Your task to perform on an android device: toggle location history Image 0: 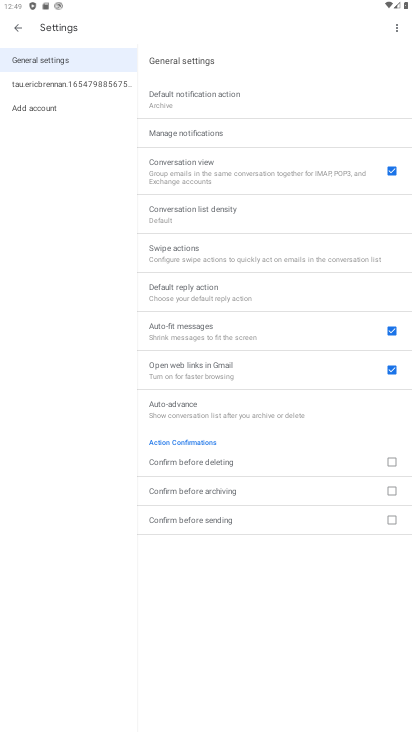
Step 0: press home button
Your task to perform on an android device: toggle location history Image 1: 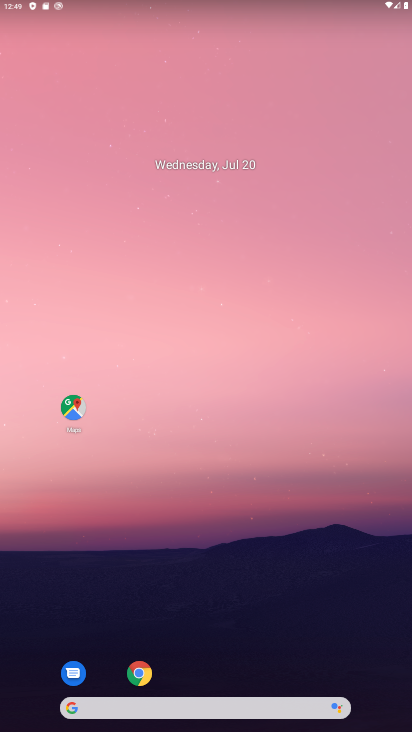
Step 1: drag from (167, 626) to (197, 220)
Your task to perform on an android device: toggle location history Image 2: 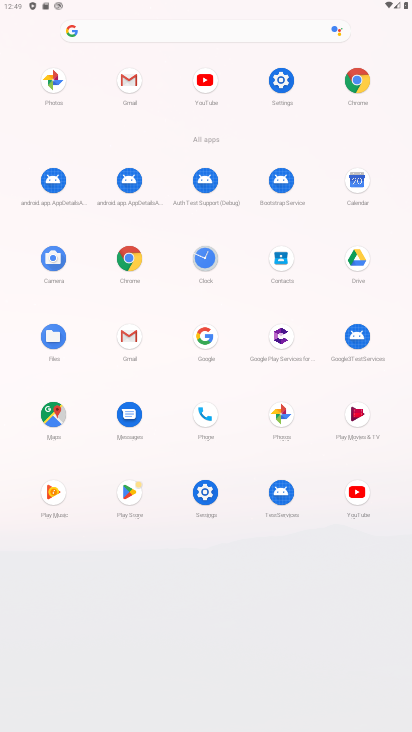
Step 2: click (278, 85)
Your task to perform on an android device: toggle location history Image 3: 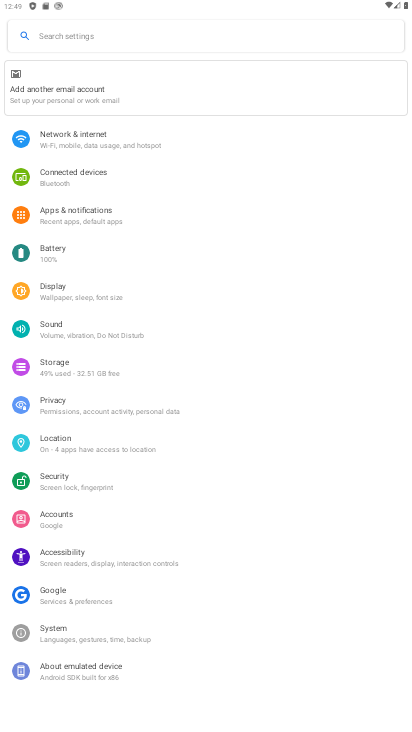
Step 3: click (120, 452)
Your task to perform on an android device: toggle location history Image 4: 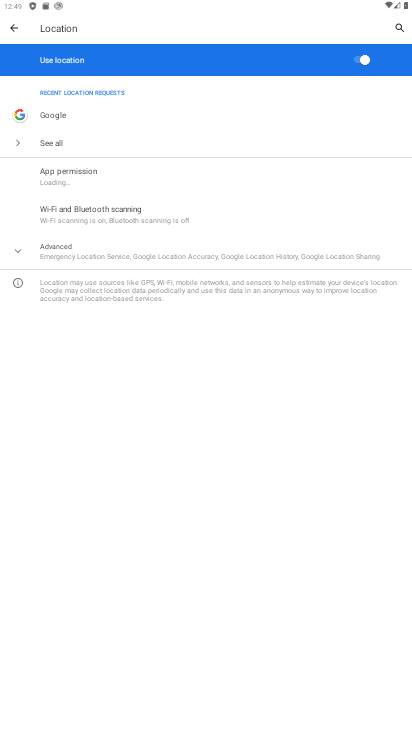
Step 4: click (116, 247)
Your task to perform on an android device: toggle location history Image 5: 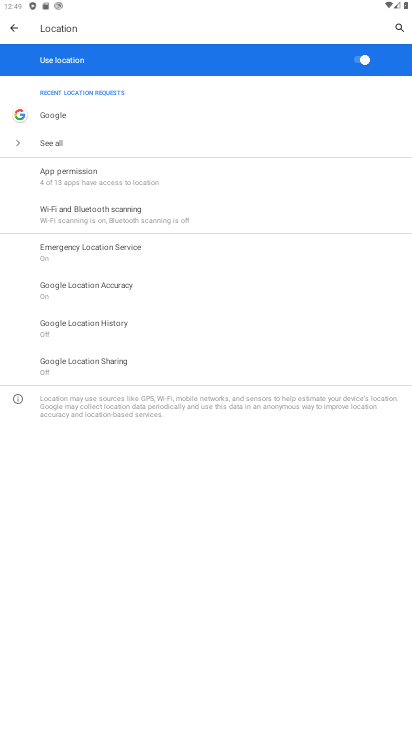
Step 5: click (79, 320)
Your task to perform on an android device: toggle location history Image 6: 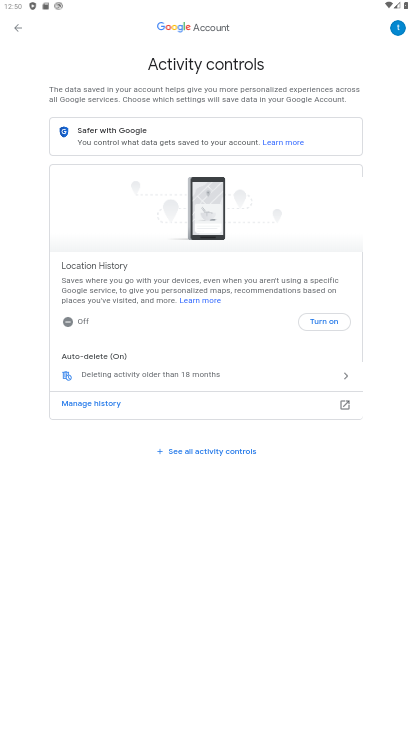
Step 6: task complete